Your task to perform on an android device: turn on the 24-hour format for clock Image 0: 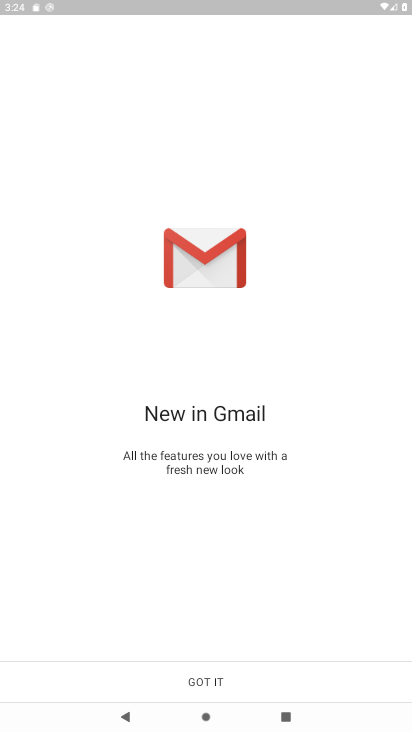
Step 0: press home button
Your task to perform on an android device: turn on the 24-hour format for clock Image 1: 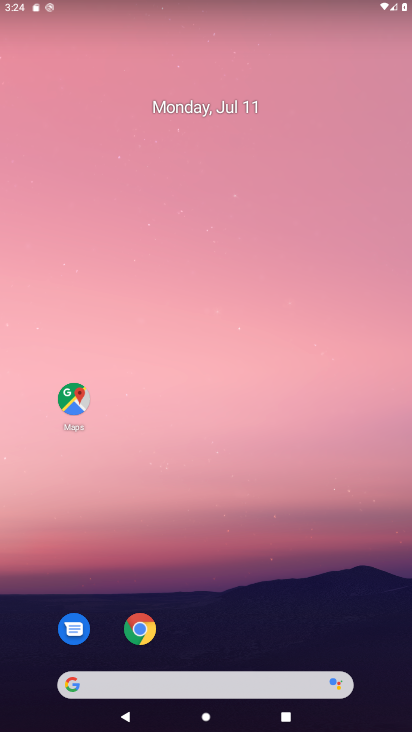
Step 1: drag from (205, 629) to (299, 78)
Your task to perform on an android device: turn on the 24-hour format for clock Image 2: 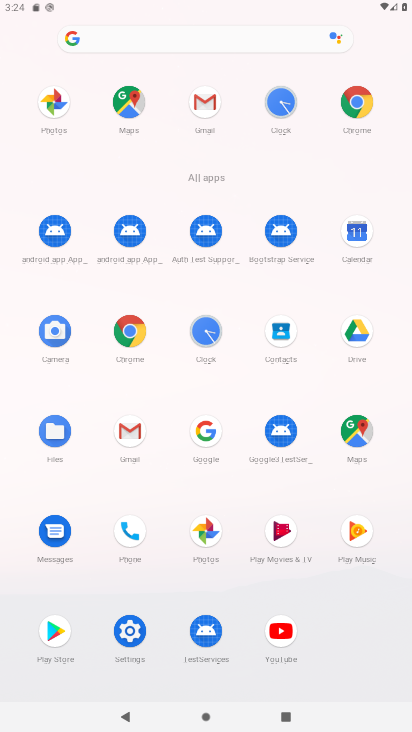
Step 2: click (207, 332)
Your task to perform on an android device: turn on the 24-hour format for clock Image 3: 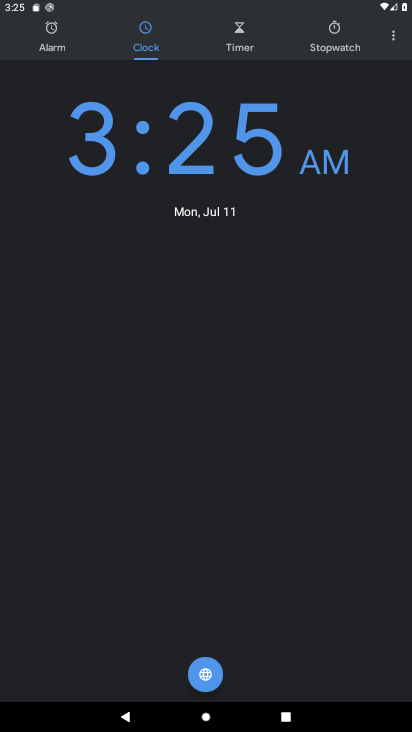
Step 3: click (392, 31)
Your task to perform on an android device: turn on the 24-hour format for clock Image 4: 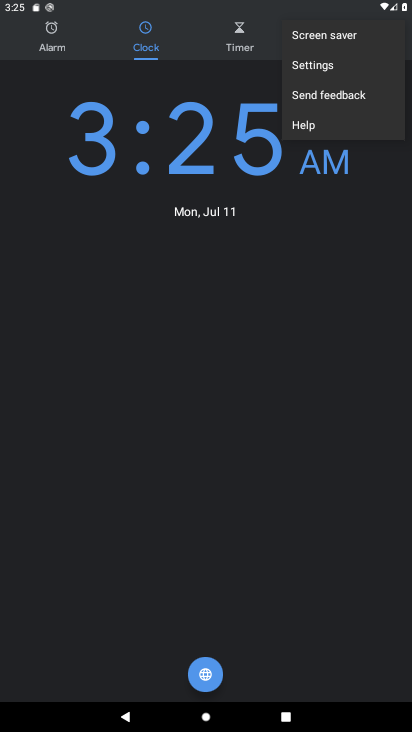
Step 4: click (323, 66)
Your task to perform on an android device: turn on the 24-hour format for clock Image 5: 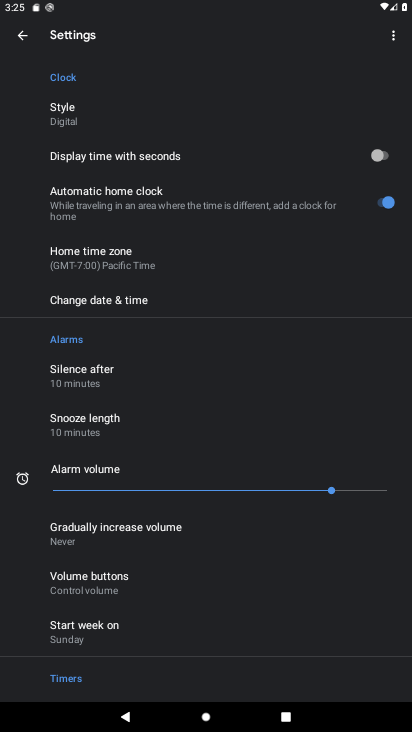
Step 5: click (132, 295)
Your task to perform on an android device: turn on the 24-hour format for clock Image 6: 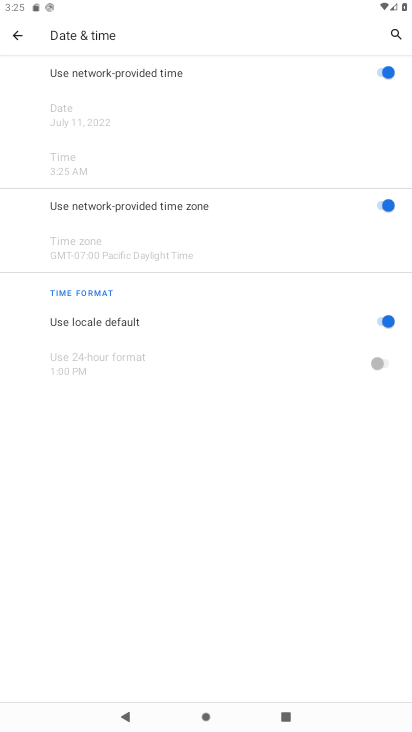
Step 6: click (389, 322)
Your task to perform on an android device: turn on the 24-hour format for clock Image 7: 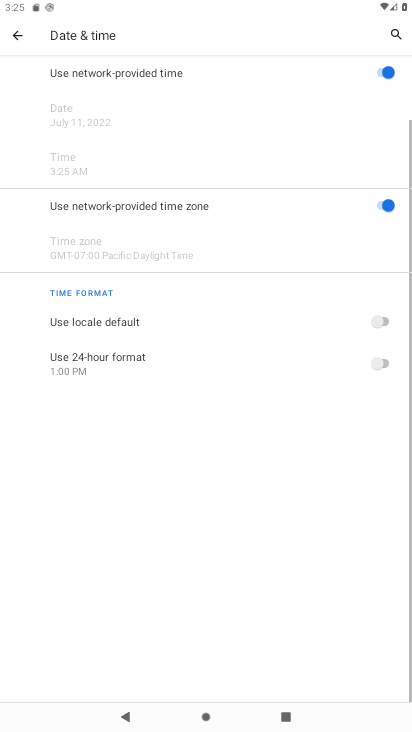
Step 7: click (378, 362)
Your task to perform on an android device: turn on the 24-hour format for clock Image 8: 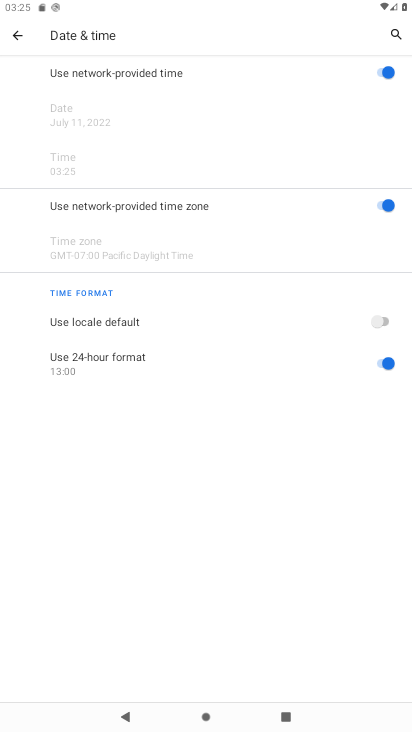
Step 8: task complete